Your task to perform on an android device: uninstall "Clock" Image 0: 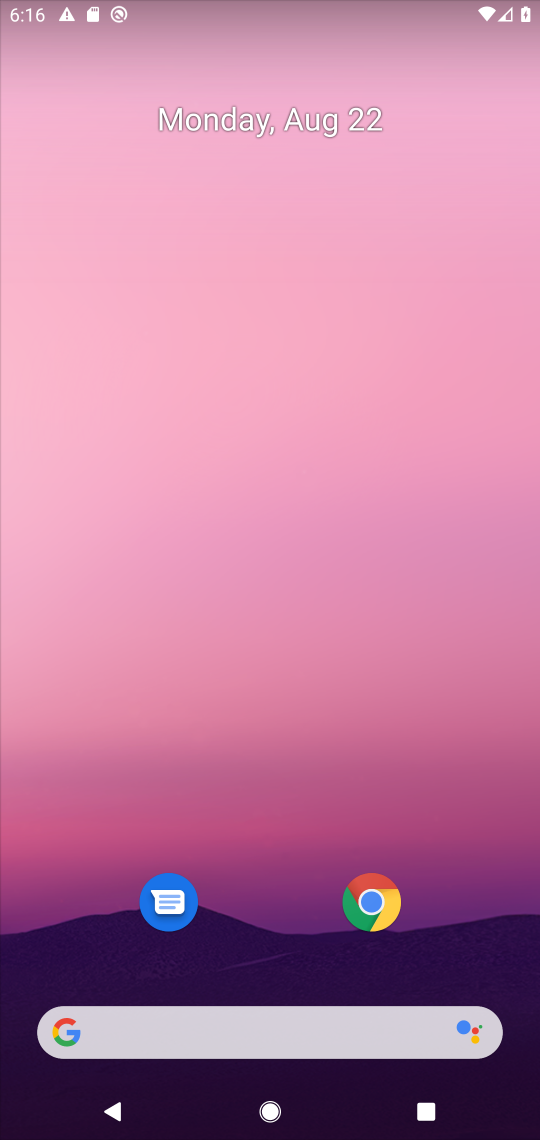
Step 0: drag from (251, 750) to (245, 145)
Your task to perform on an android device: uninstall "Clock" Image 1: 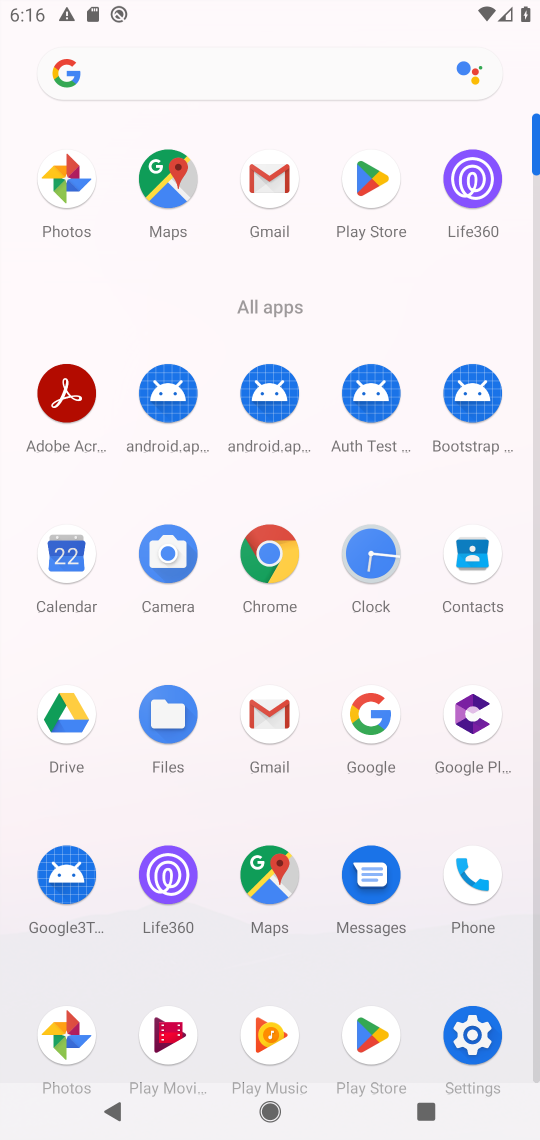
Step 1: click (367, 191)
Your task to perform on an android device: uninstall "Clock" Image 2: 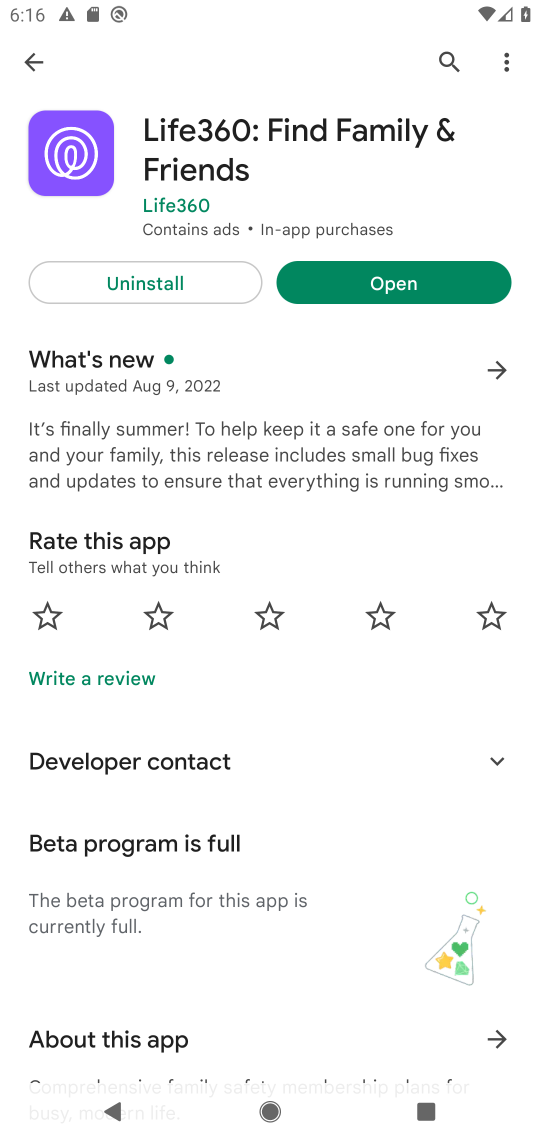
Step 2: click (28, 65)
Your task to perform on an android device: uninstall "Clock" Image 3: 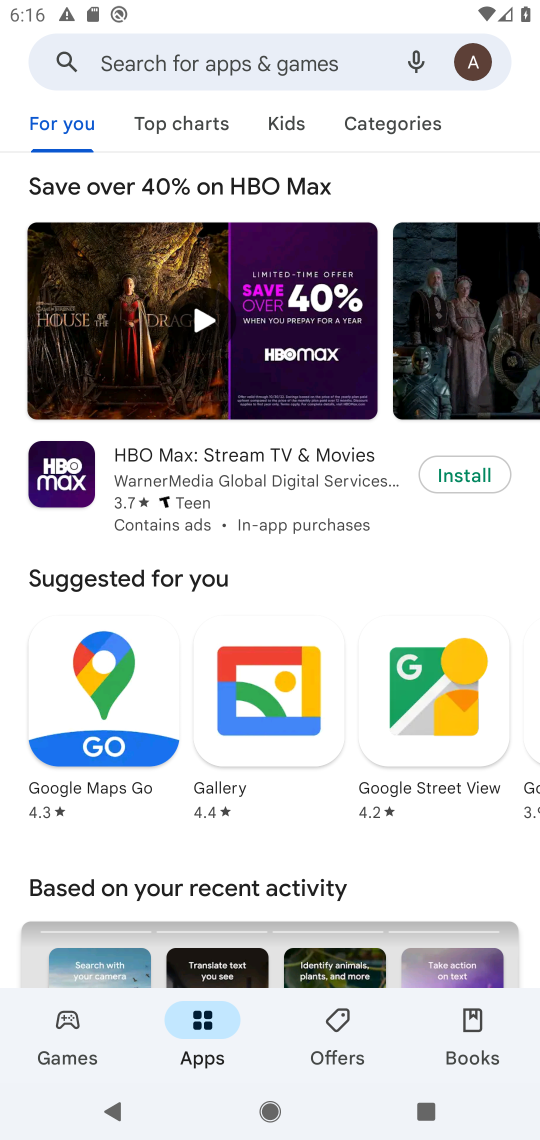
Step 3: click (205, 60)
Your task to perform on an android device: uninstall "Clock" Image 4: 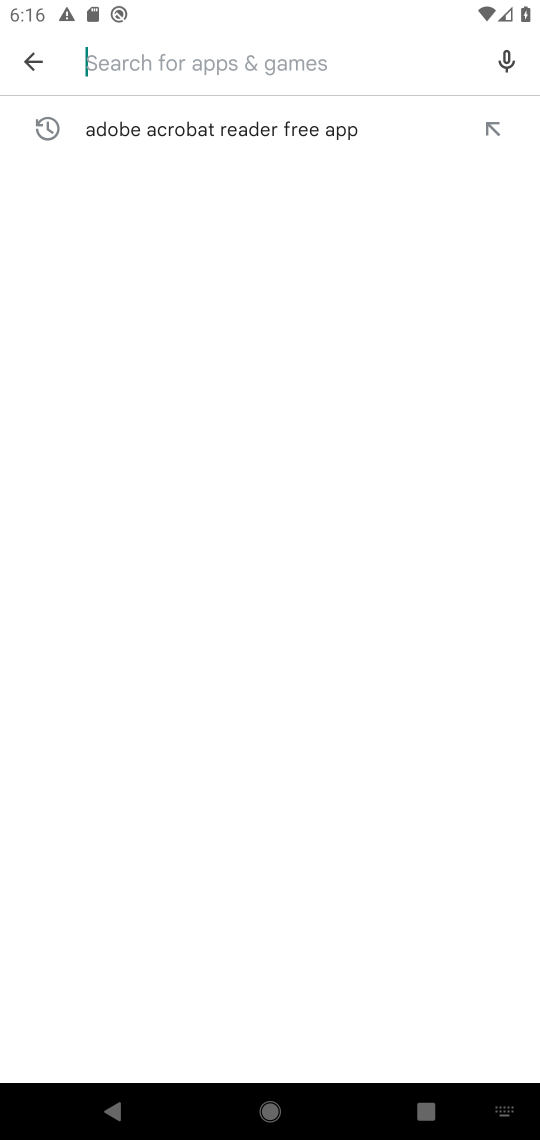
Step 4: type "Clock"
Your task to perform on an android device: uninstall "Clock" Image 5: 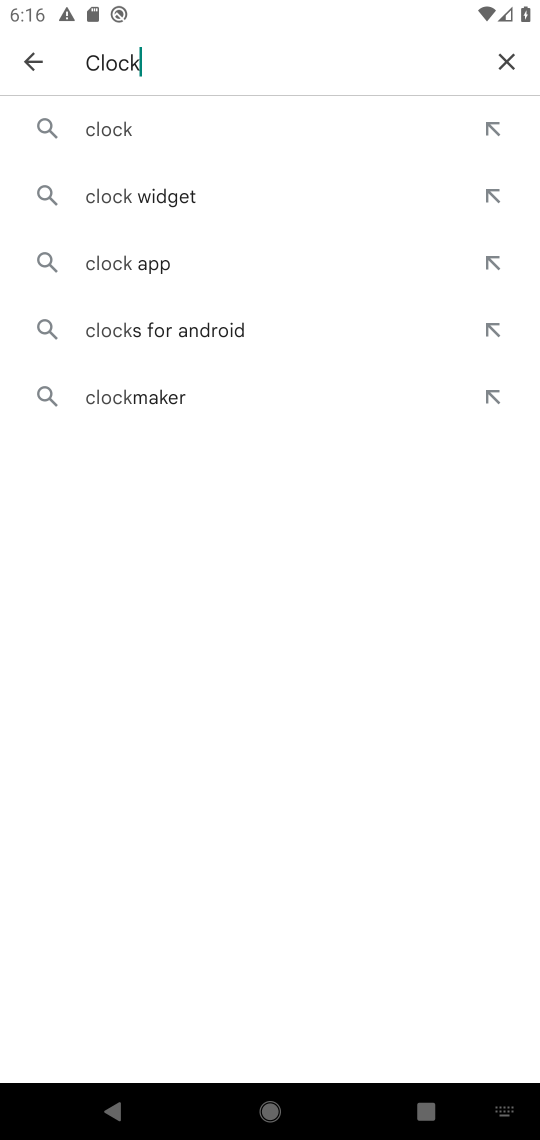
Step 5: click (129, 130)
Your task to perform on an android device: uninstall "Clock" Image 6: 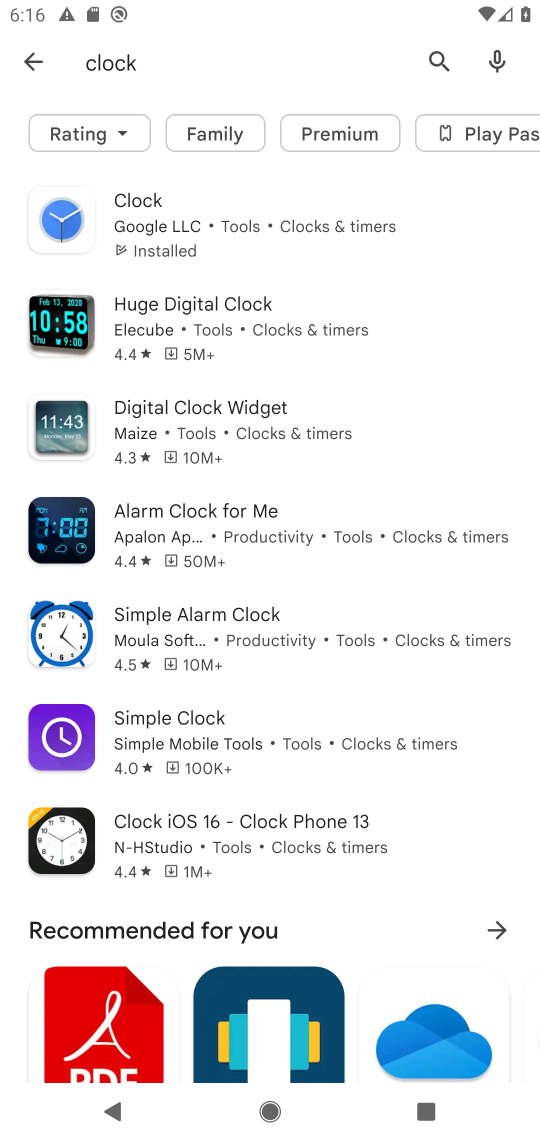
Step 6: click (153, 231)
Your task to perform on an android device: uninstall "Clock" Image 7: 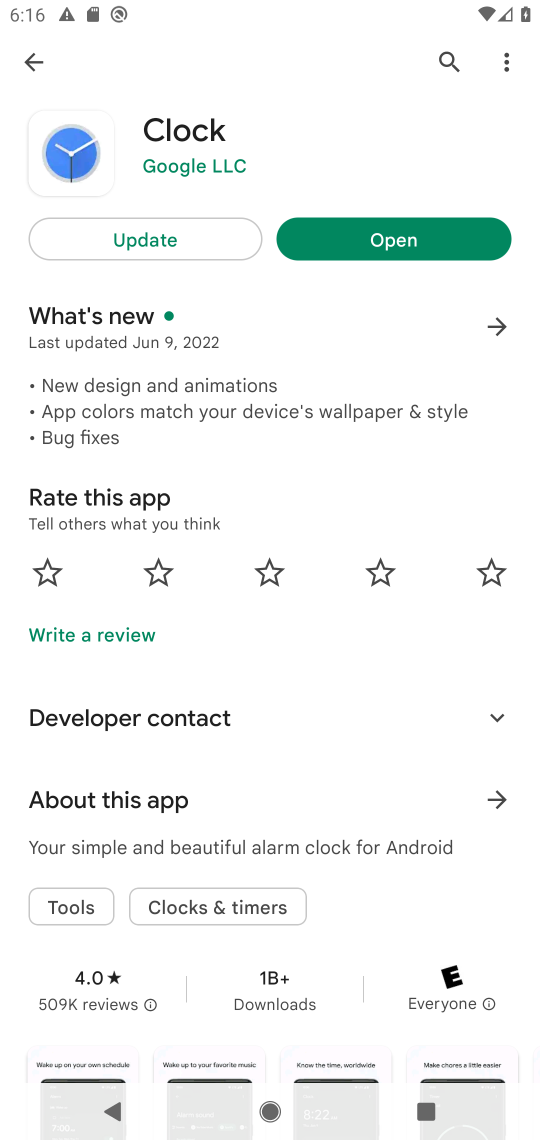
Step 7: click (142, 234)
Your task to perform on an android device: uninstall "Clock" Image 8: 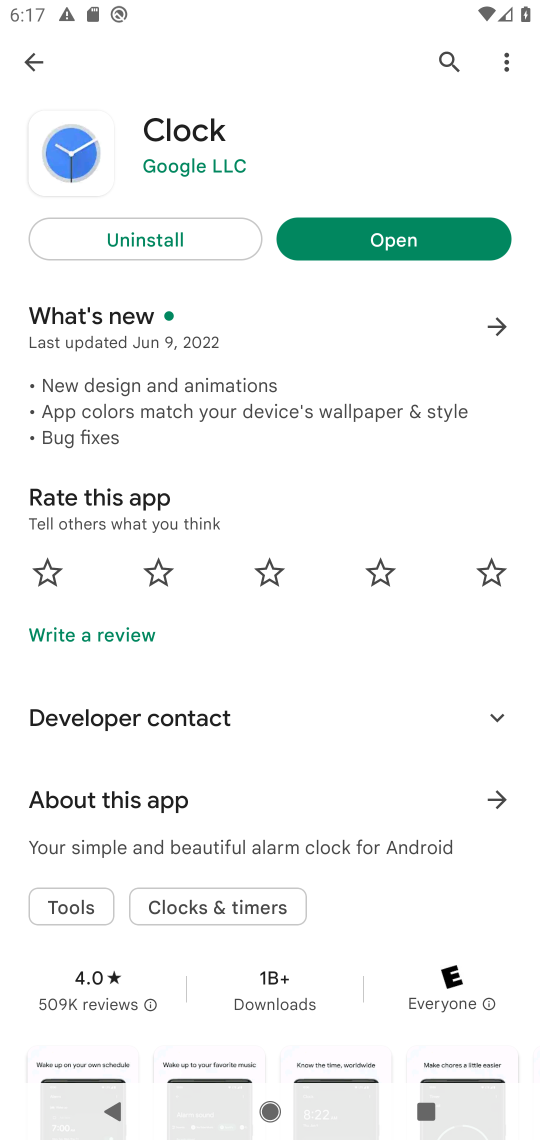
Step 8: click (142, 234)
Your task to perform on an android device: uninstall "Clock" Image 9: 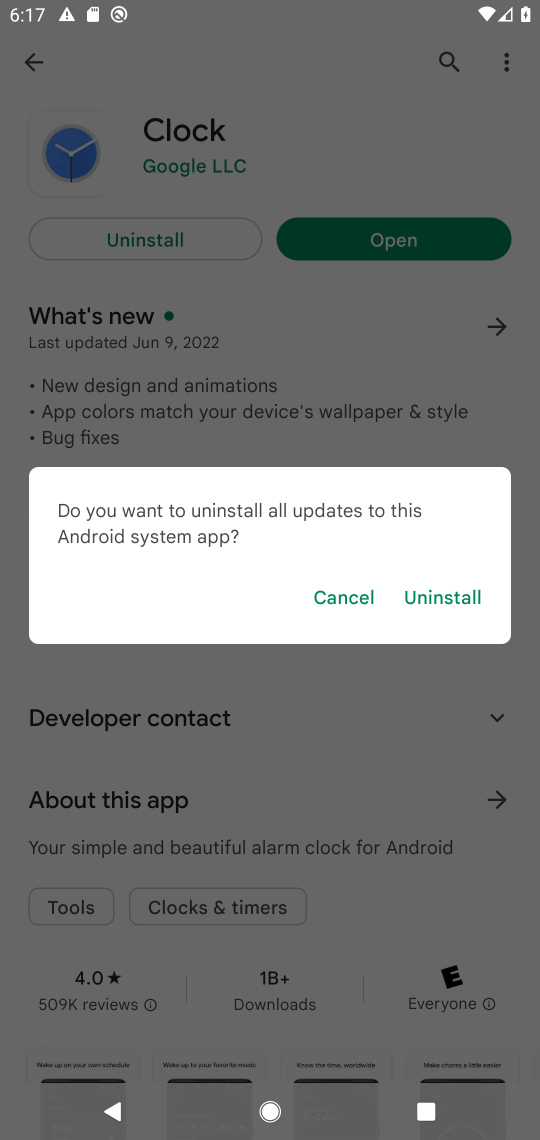
Step 9: click (456, 589)
Your task to perform on an android device: uninstall "Clock" Image 10: 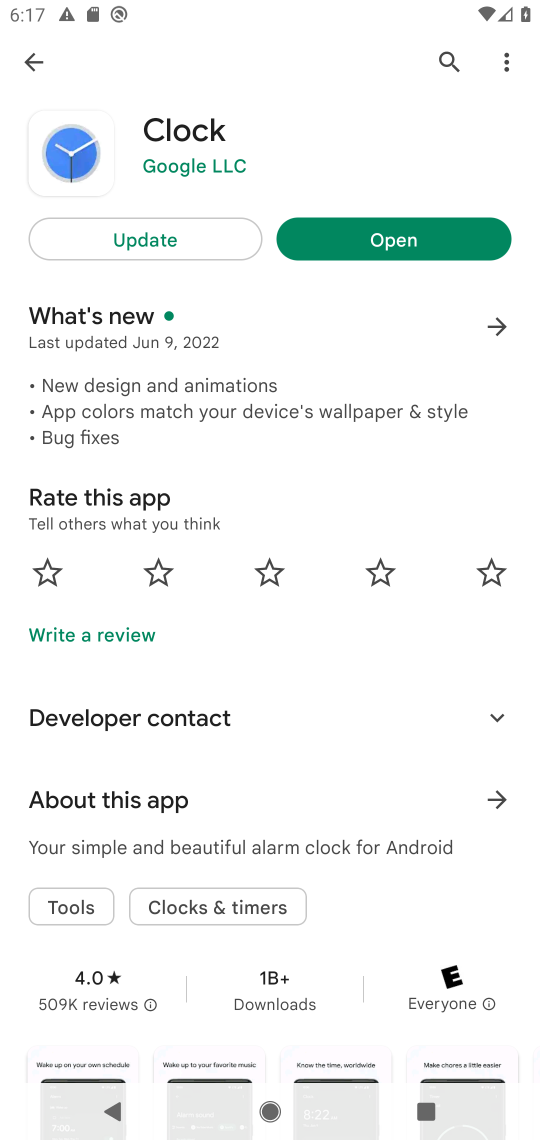
Step 10: task complete